Your task to perform on an android device: turn off airplane mode Image 0: 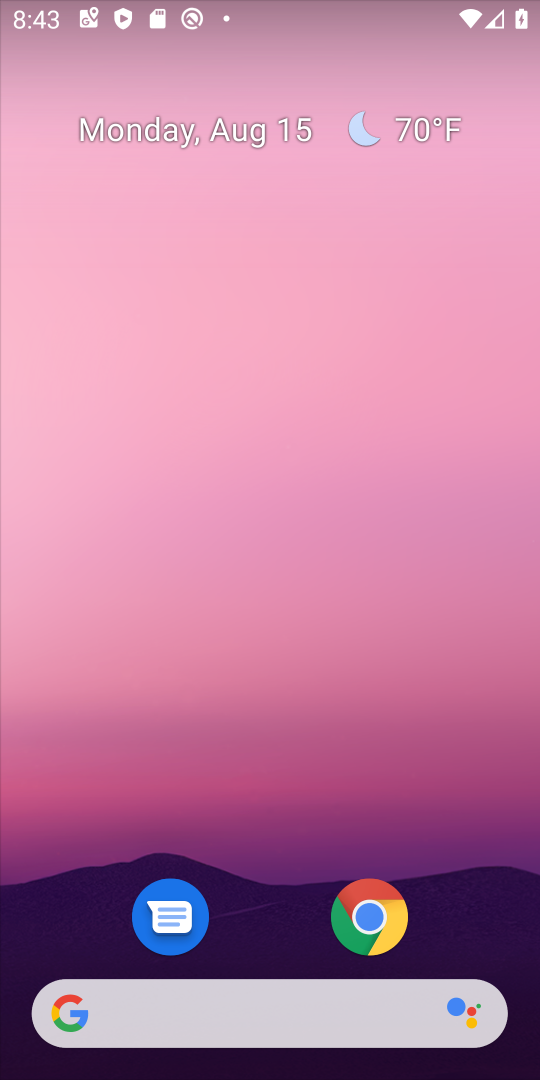
Step 0: drag from (285, 846) to (262, 0)
Your task to perform on an android device: turn off airplane mode Image 1: 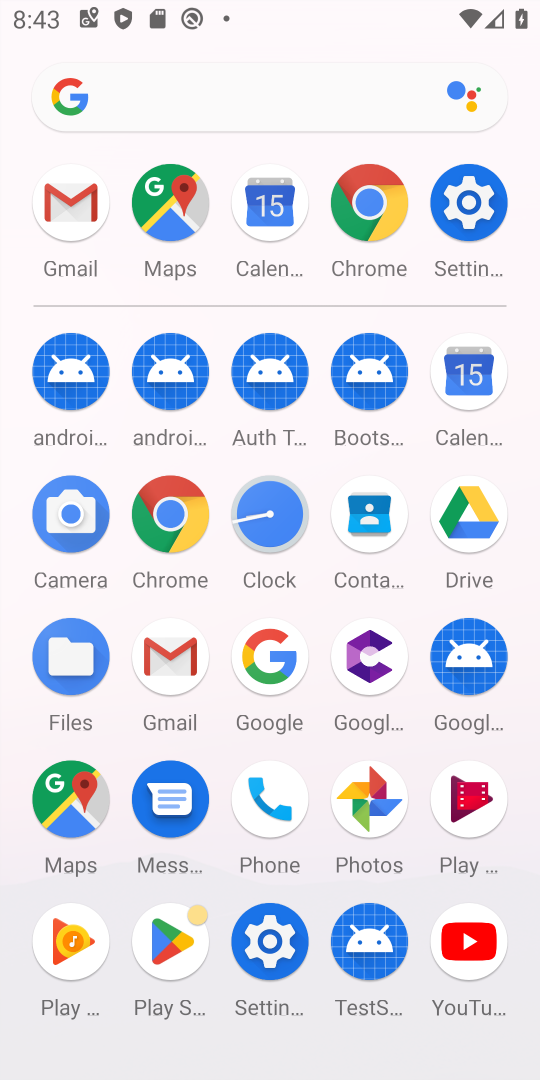
Step 1: click (469, 192)
Your task to perform on an android device: turn off airplane mode Image 2: 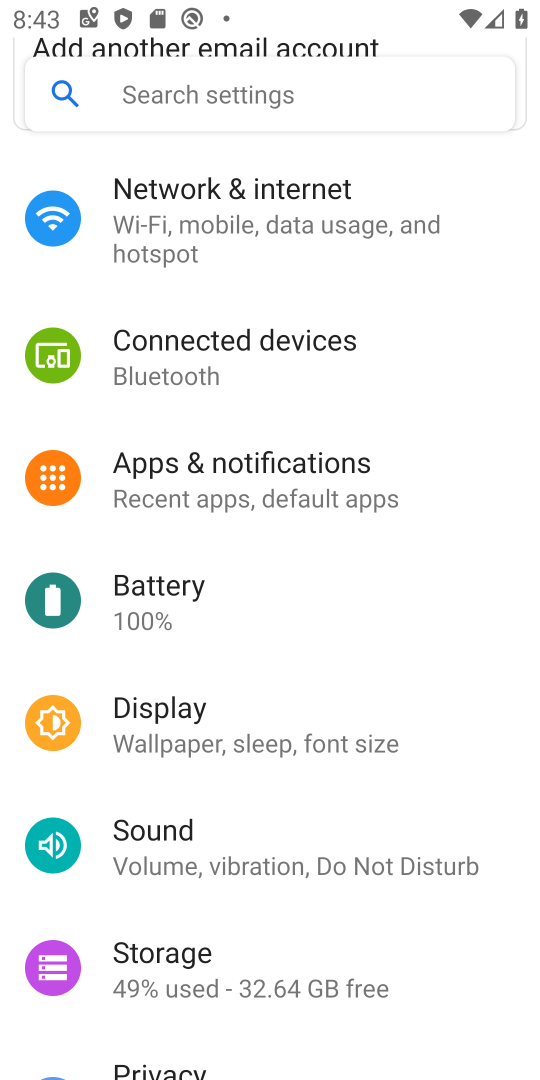
Step 2: click (347, 216)
Your task to perform on an android device: turn off airplane mode Image 3: 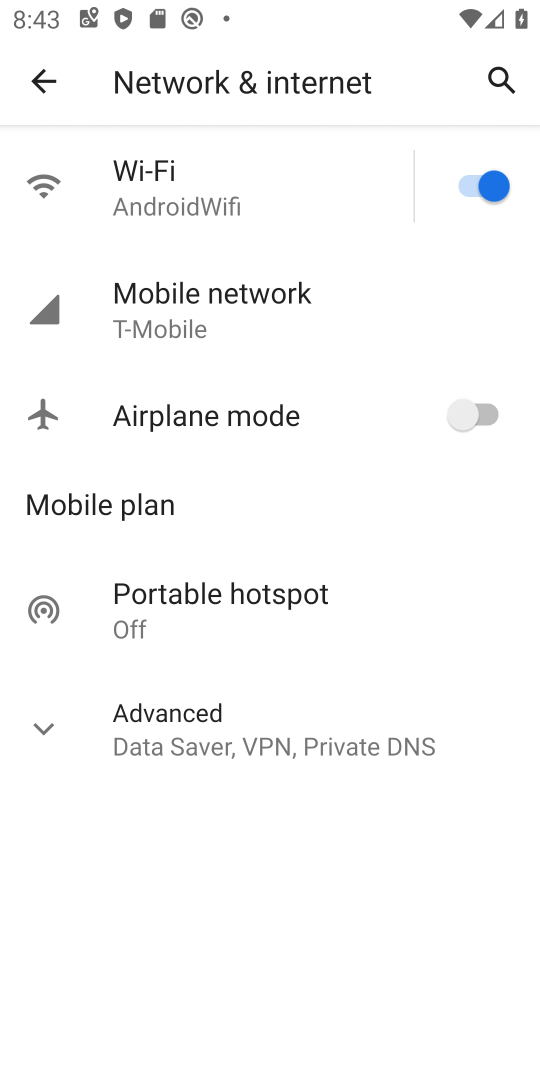
Step 3: task complete